Your task to perform on an android device: Toggle the flashlight Image 0: 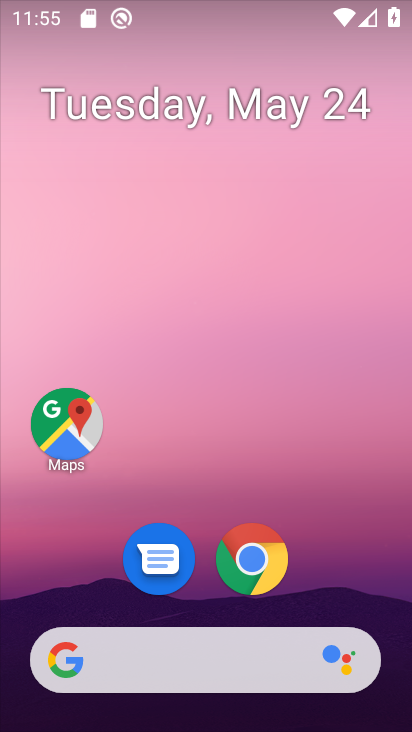
Step 0: drag from (216, 19) to (262, 516)
Your task to perform on an android device: Toggle the flashlight Image 1: 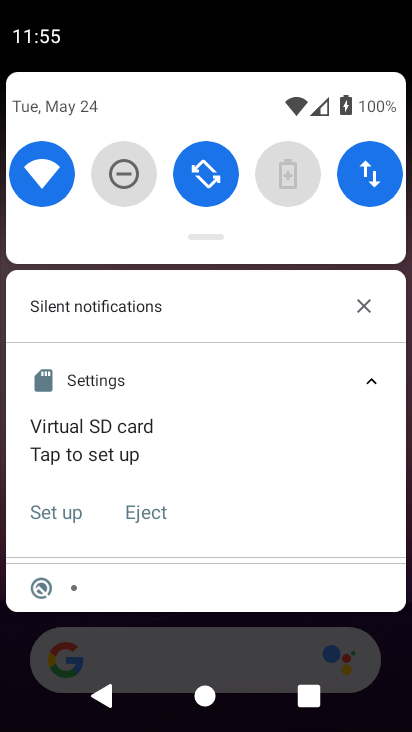
Step 1: drag from (207, 229) to (240, 538)
Your task to perform on an android device: Toggle the flashlight Image 2: 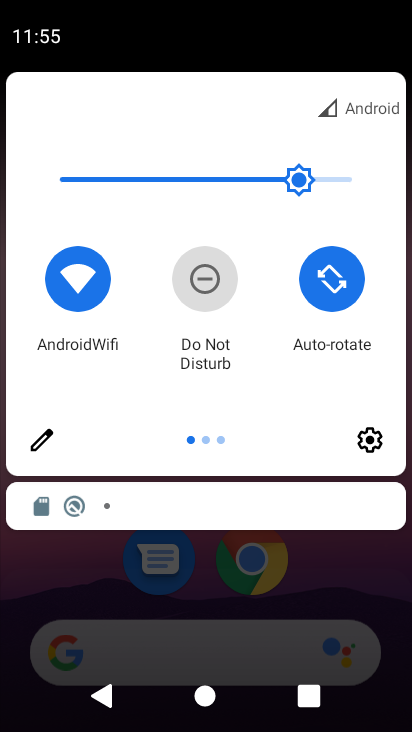
Step 2: click (36, 436)
Your task to perform on an android device: Toggle the flashlight Image 3: 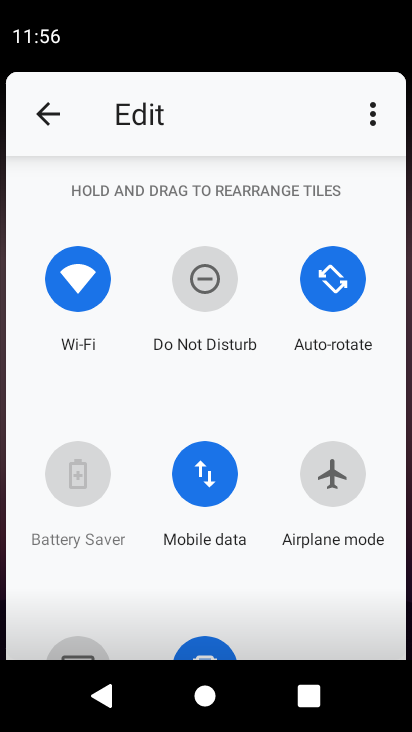
Step 3: task complete